Your task to perform on an android device: check storage Image 0: 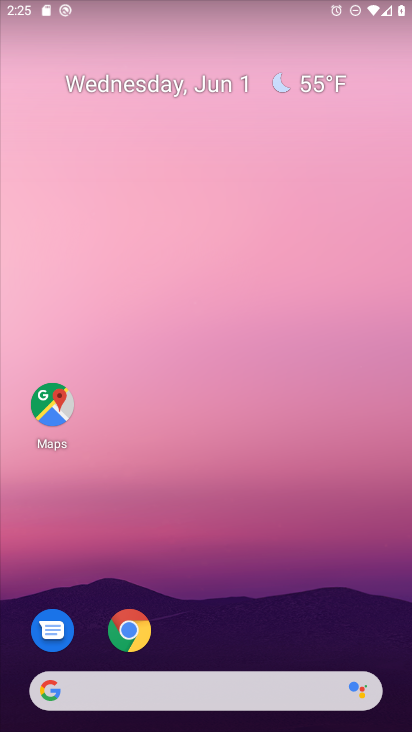
Step 0: drag from (337, 573) to (241, 88)
Your task to perform on an android device: check storage Image 1: 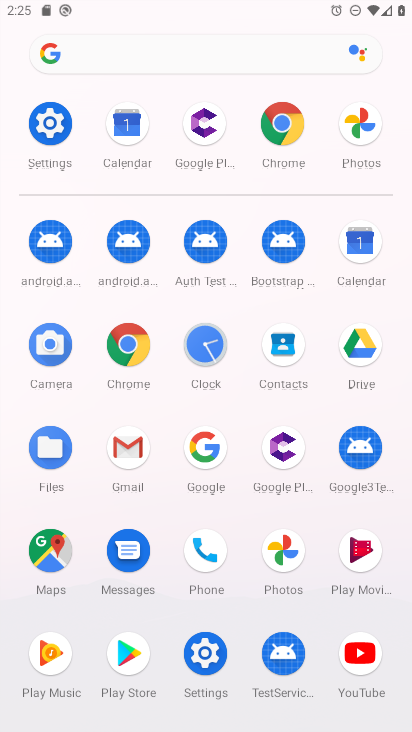
Step 1: click (62, 123)
Your task to perform on an android device: check storage Image 2: 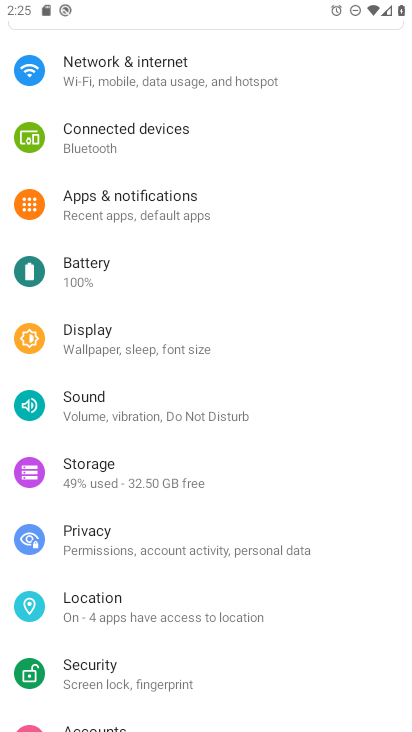
Step 2: click (173, 480)
Your task to perform on an android device: check storage Image 3: 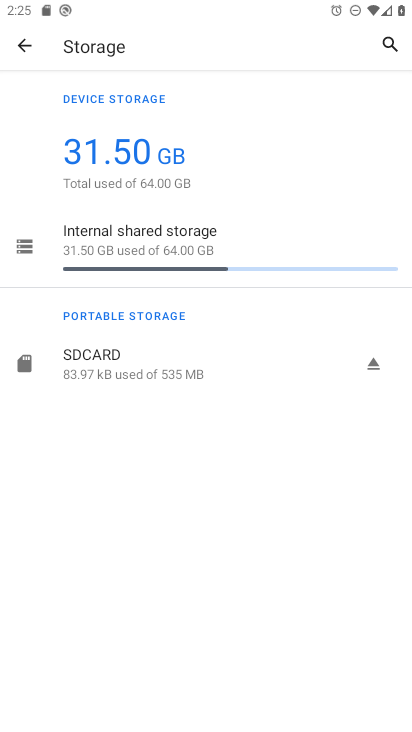
Step 3: task complete